Your task to perform on an android device: snooze an email in the gmail app Image 0: 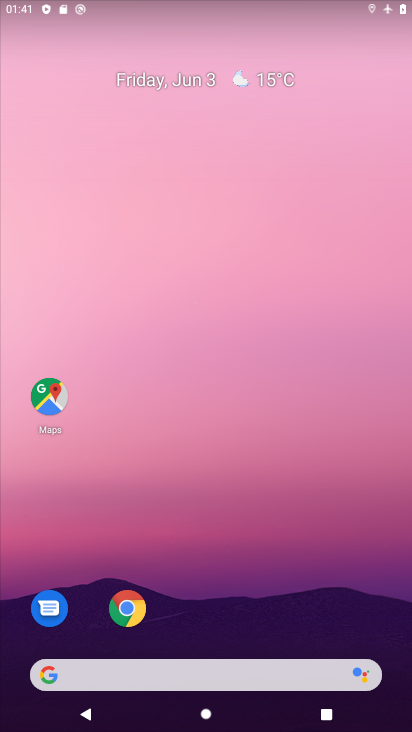
Step 0: drag from (209, 584) to (226, 153)
Your task to perform on an android device: snooze an email in the gmail app Image 1: 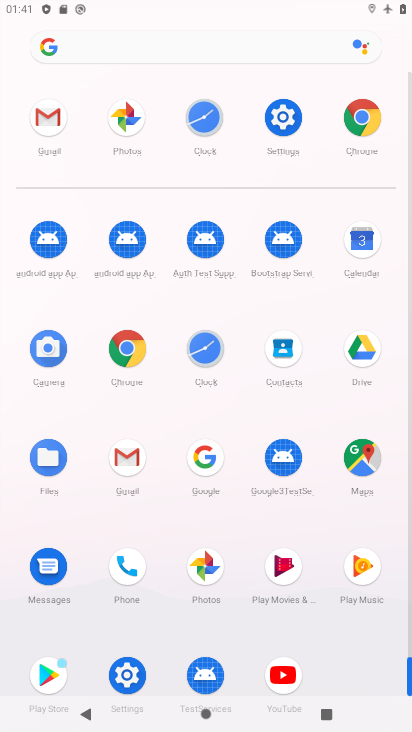
Step 1: click (52, 114)
Your task to perform on an android device: snooze an email in the gmail app Image 2: 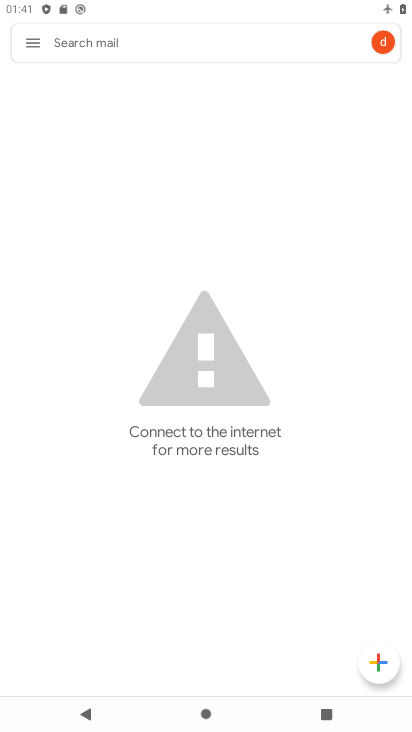
Step 2: click (28, 48)
Your task to perform on an android device: snooze an email in the gmail app Image 3: 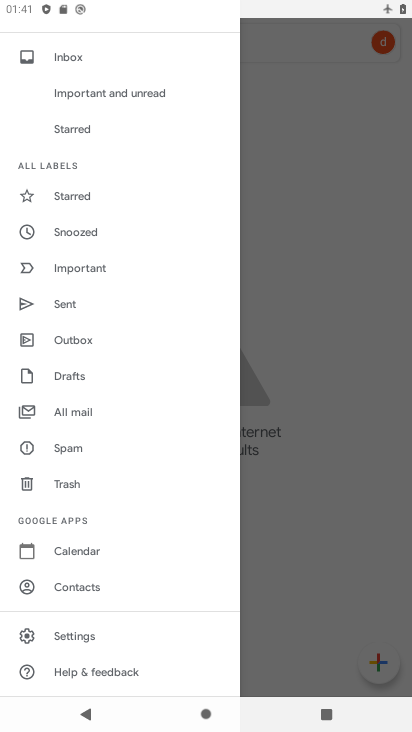
Step 3: click (76, 409)
Your task to perform on an android device: snooze an email in the gmail app Image 4: 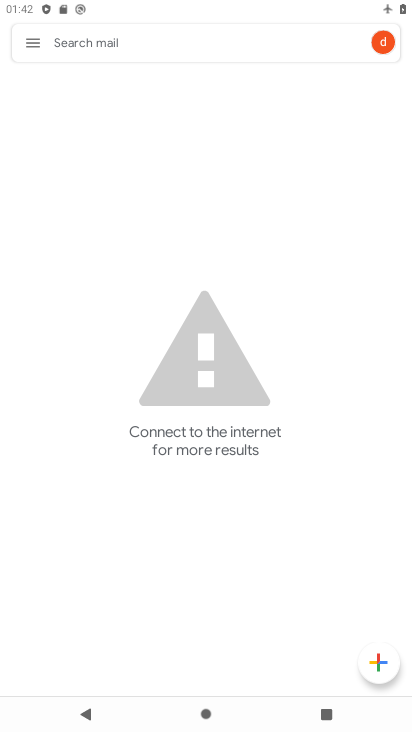
Step 4: task complete